Your task to perform on an android device: turn vacation reply on in the gmail app Image 0: 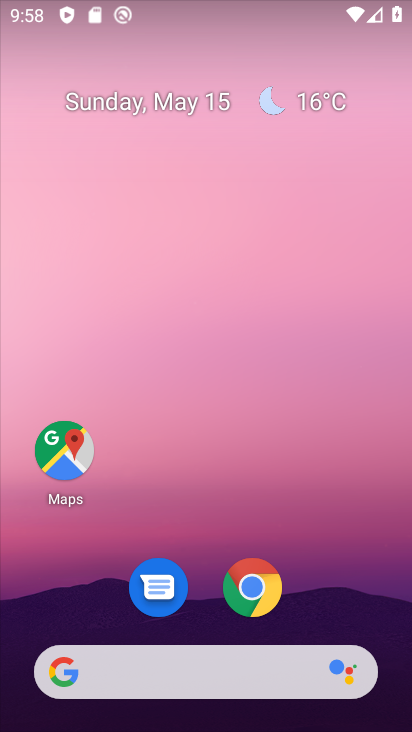
Step 0: drag from (333, 521) to (298, 29)
Your task to perform on an android device: turn vacation reply on in the gmail app Image 1: 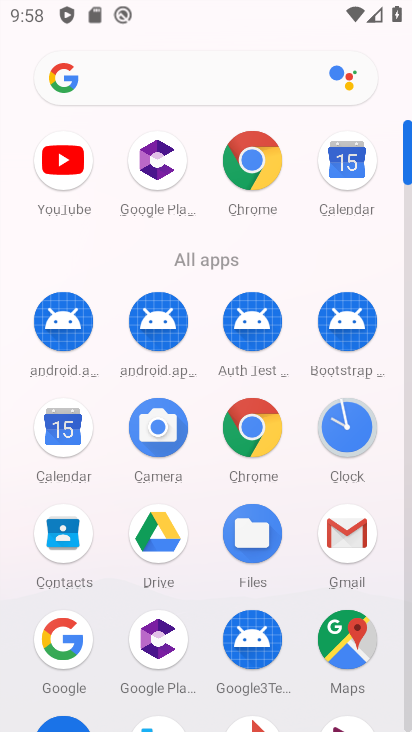
Step 1: click (346, 529)
Your task to perform on an android device: turn vacation reply on in the gmail app Image 2: 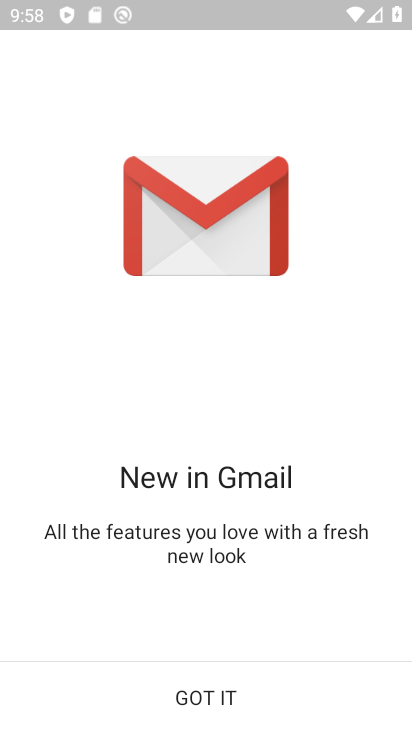
Step 2: click (202, 688)
Your task to perform on an android device: turn vacation reply on in the gmail app Image 3: 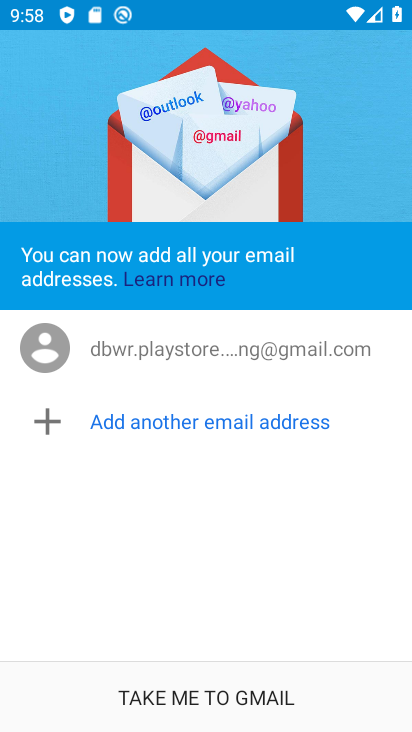
Step 3: click (261, 706)
Your task to perform on an android device: turn vacation reply on in the gmail app Image 4: 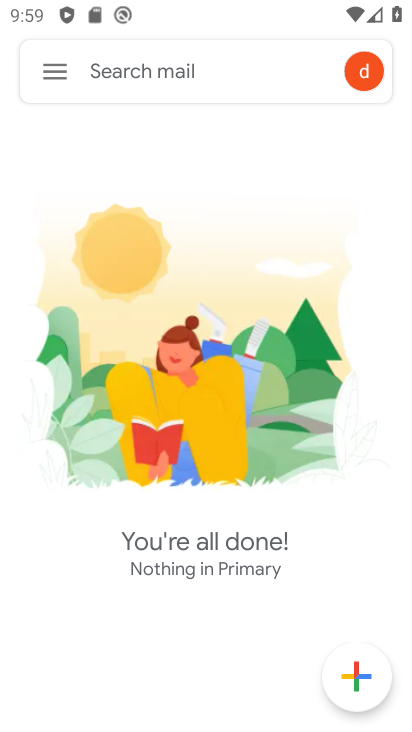
Step 4: click (54, 76)
Your task to perform on an android device: turn vacation reply on in the gmail app Image 5: 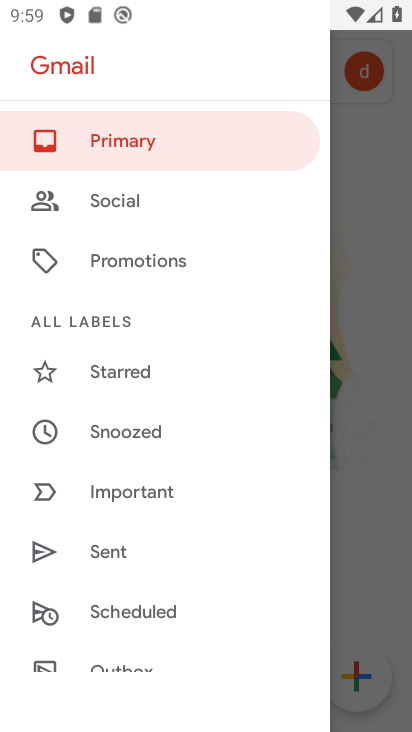
Step 5: click (192, 74)
Your task to perform on an android device: turn vacation reply on in the gmail app Image 6: 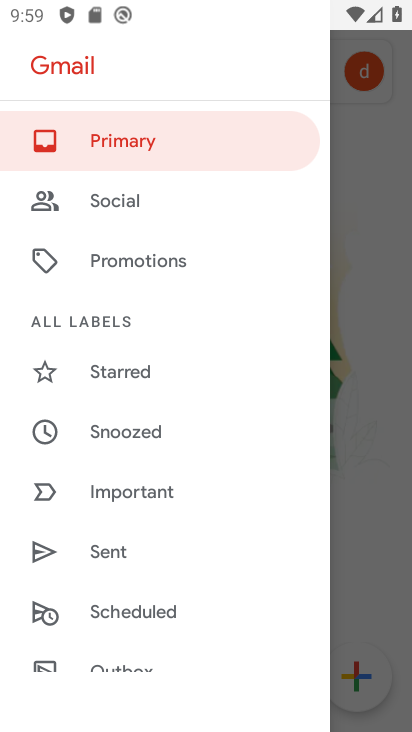
Step 6: drag from (176, 584) to (190, 162)
Your task to perform on an android device: turn vacation reply on in the gmail app Image 7: 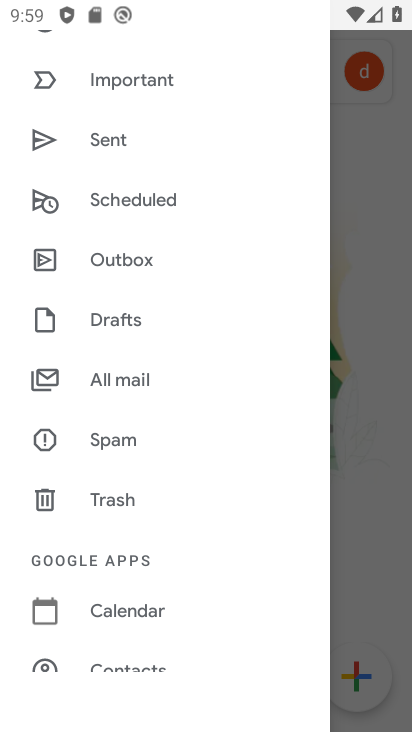
Step 7: drag from (145, 576) to (193, 144)
Your task to perform on an android device: turn vacation reply on in the gmail app Image 8: 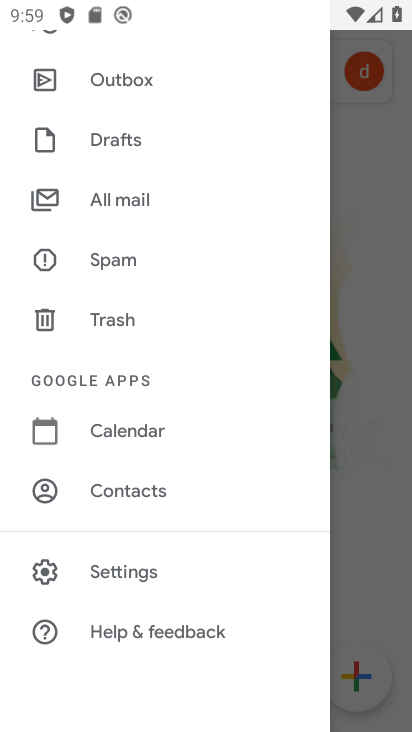
Step 8: click (117, 575)
Your task to perform on an android device: turn vacation reply on in the gmail app Image 9: 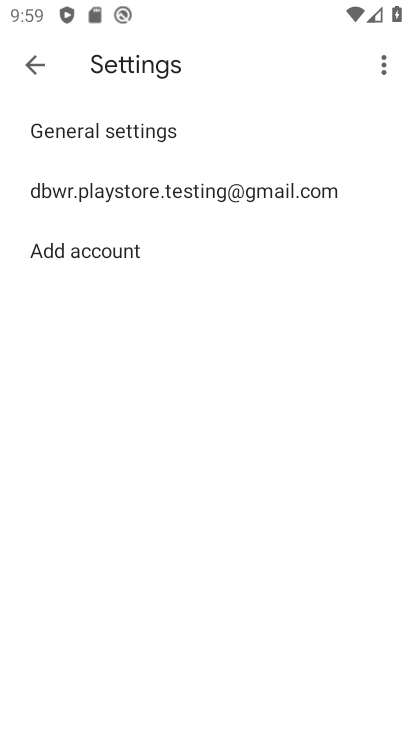
Step 9: click (153, 186)
Your task to perform on an android device: turn vacation reply on in the gmail app Image 10: 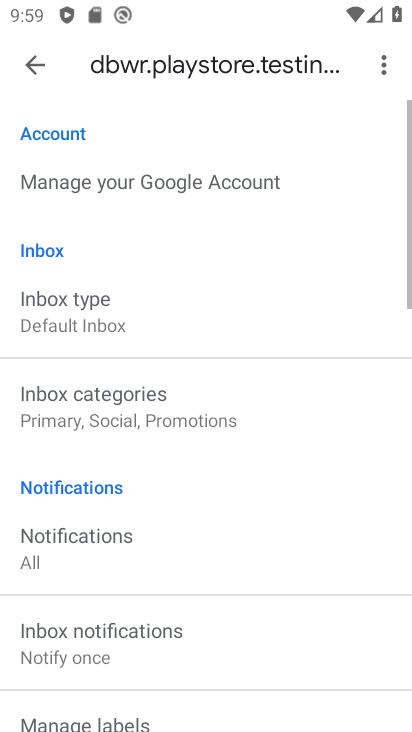
Step 10: drag from (167, 592) to (240, 130)
Your task to perform on an android device: turn vacation reply on in the gmail app Image 11: 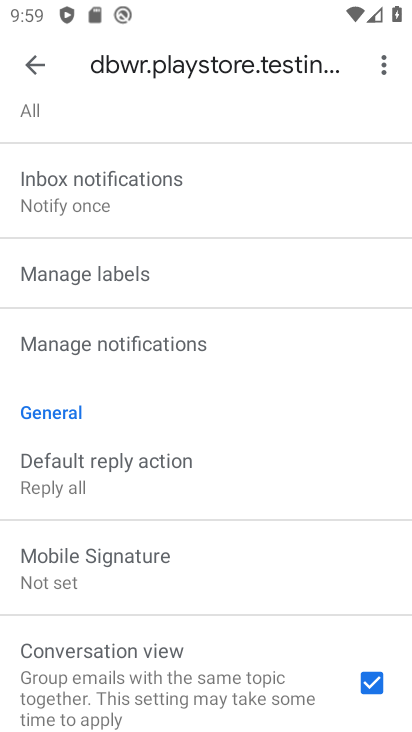
Step 11: drag from (220, 559) to (224, 153)
Your task to perform on an android device: turn vacation reply on in the gmail app Image 12: 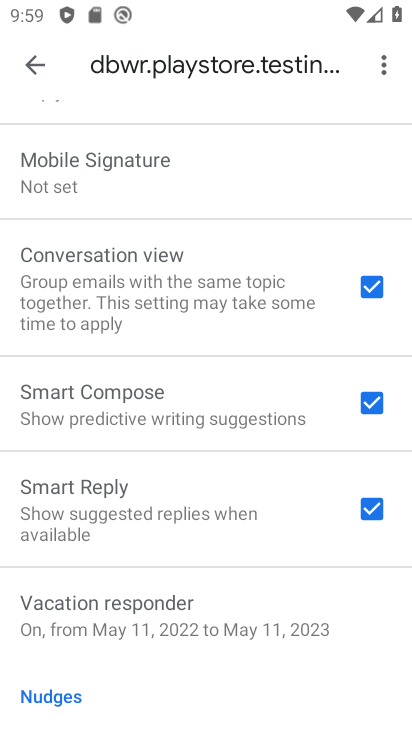
Step 12: drag from (184, 217) to (185, 580)
Your task to perform on an android device: turn vacation reply on in the gmail app Image 13: 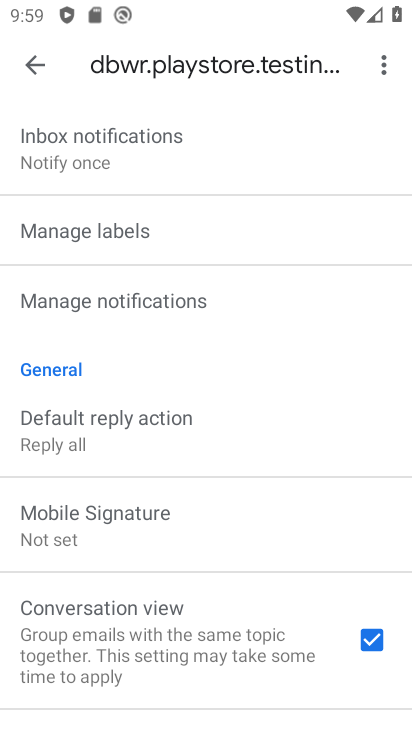
Step 13: drag from (186, 574) to (227, 260)
Your task to perform on an android device: turn vacation reply on in the gmail app Image 14: 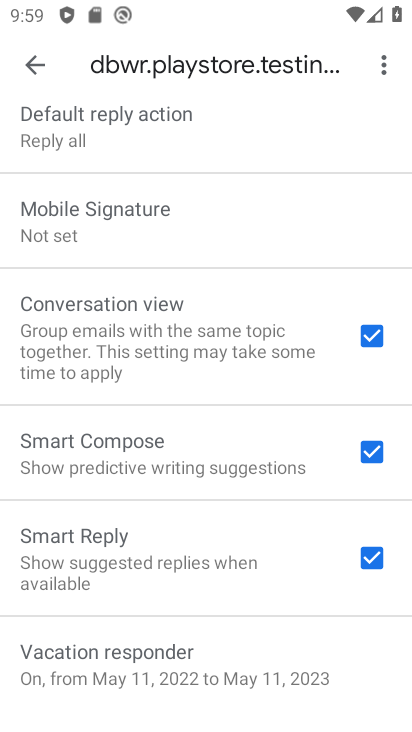
Step 14: drag from (253, 605) to (245, 233)
Your task to perform on an android device: turn vacation reply on in the gmail app Image 15: 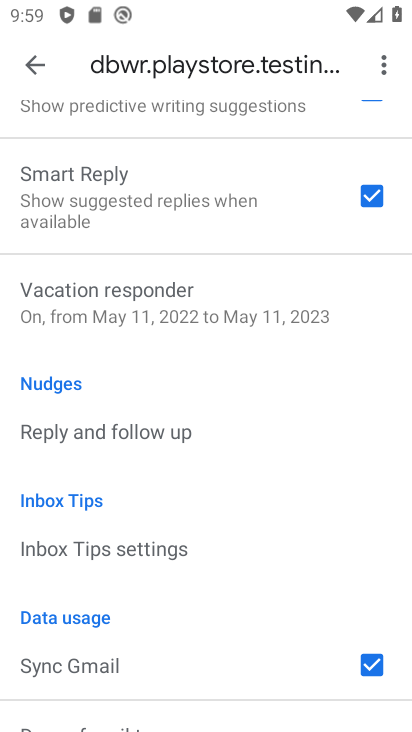
Step 15: click (156, 278)
Your task to perform on an android device: turn vacation reply on in the gmail app Image 16: 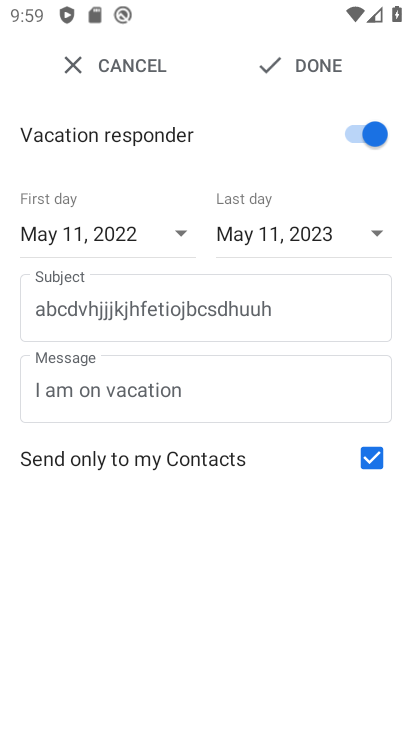
Step 16: click (305, 59)
Your task to perform on an android device: turn vacation reply on in the gmail app Image 17: 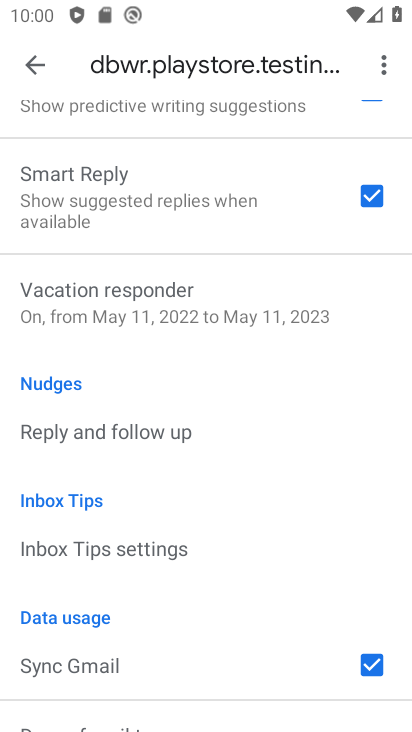
Step 17: task complete